Your task to perform on an android device: turn pop-ups on in chrome Image 0: 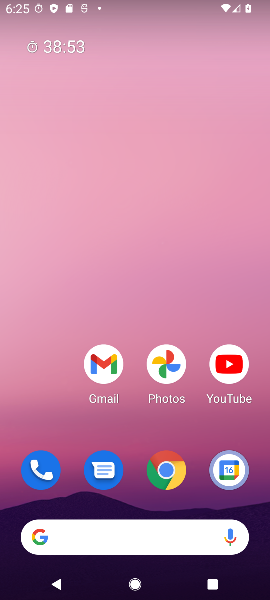
Step 0: press home button
Your task to perform on an android device: turn pop-ups on in chrome Image 1: 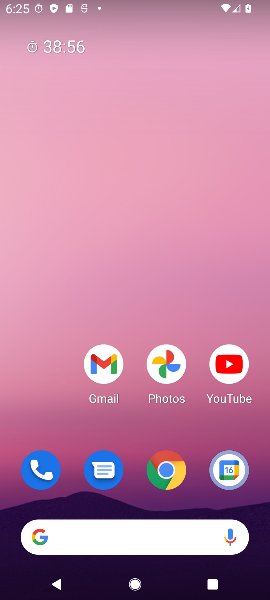
Step 1: click (157, 486)
Your task to perform on an android device: turn pop-ups on in chrome Image 2: 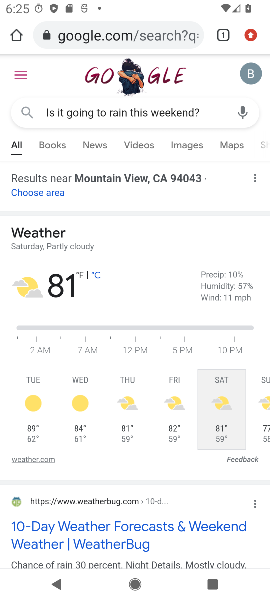
Step 2: drag from (254, 33) to (163, 451)
Your task to perform on an android device: turn pop-ups on in chrome Image 3: 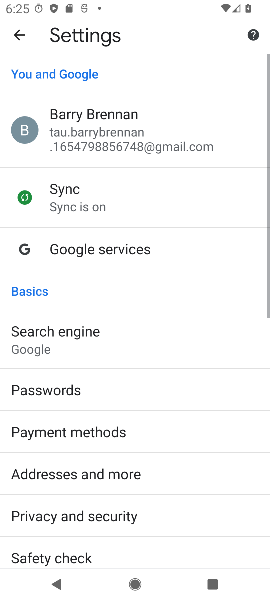
Step 3: drag from (163, 451) to (171, 85)
Your task to perform on an android device: turn pop-ups on in chrome Image 4: 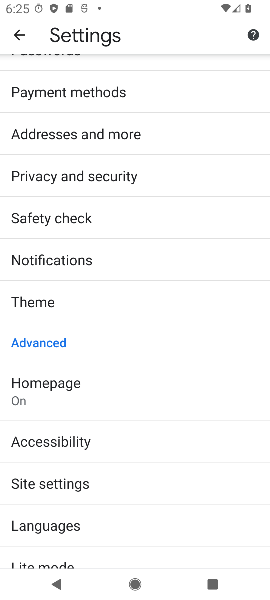
Step 4: click (61, 478)
Your task to perform on an android device: turn pop-ups on in chrome Image 5: 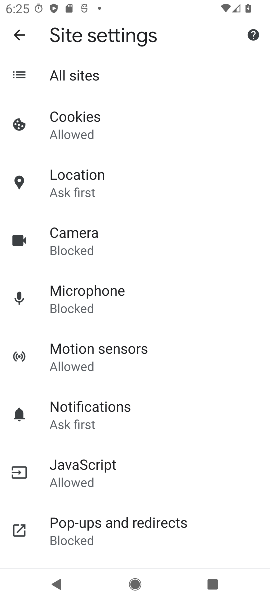
Step 5: click (84, 526)
Your task to perform on an android device: turn pop-ups on in chrome Image 6: 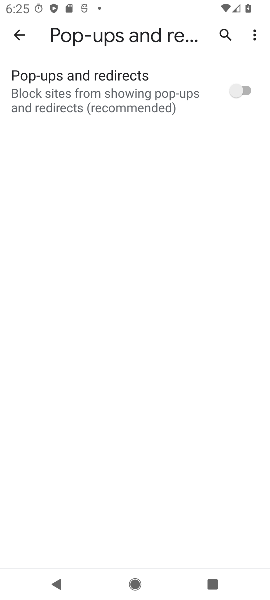
Step 6: click (129, 88)
Your task to perform on an android device: turn pop-ups on in chrome Image 7: 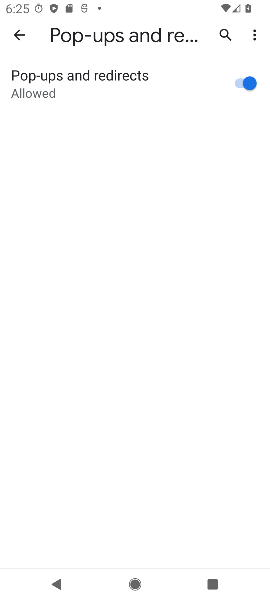
Step 7: task complete